Your task to perform on an android device: Search for Mexican restaurants on Maps Image 0: 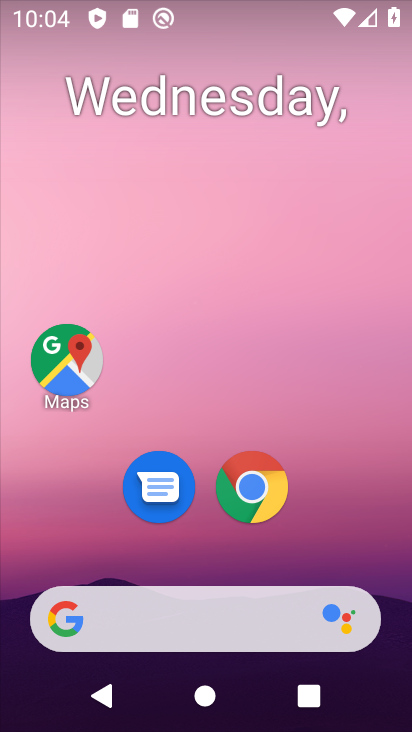
Step 0: click (60, 353)
Your task to perform on an android device: Search for Mexican restaurants on Maps Image 1: 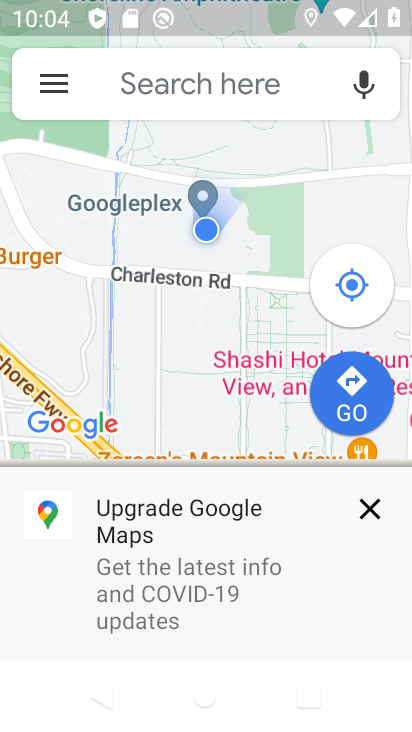
Step 1: click (254, 89)
Your task to perform on an android device: Search for Mexican restaurants on Maps Image 2: 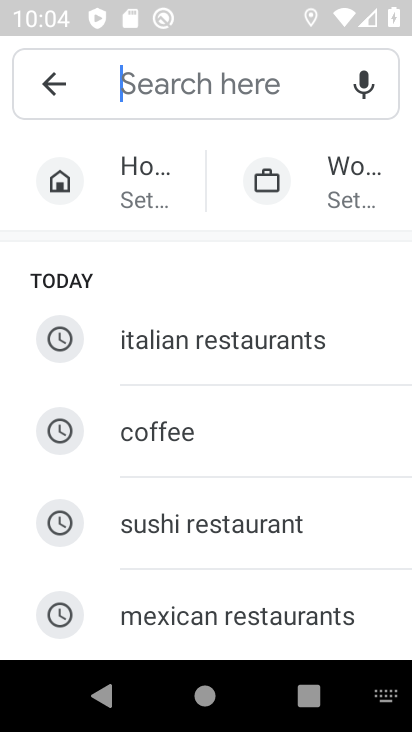
Step 2: click (207, 617)
Your task to perform on an android device: Search for Mexican restaurants on Maps Image 3: 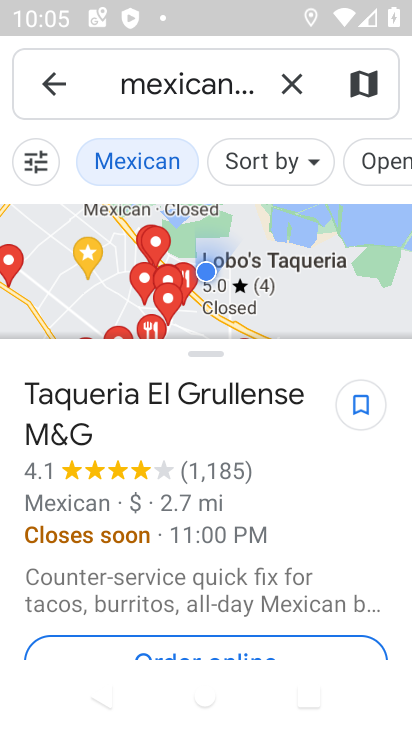
Step 3: task complete